Your task to perform on an android device: open wifi settings Image 0: 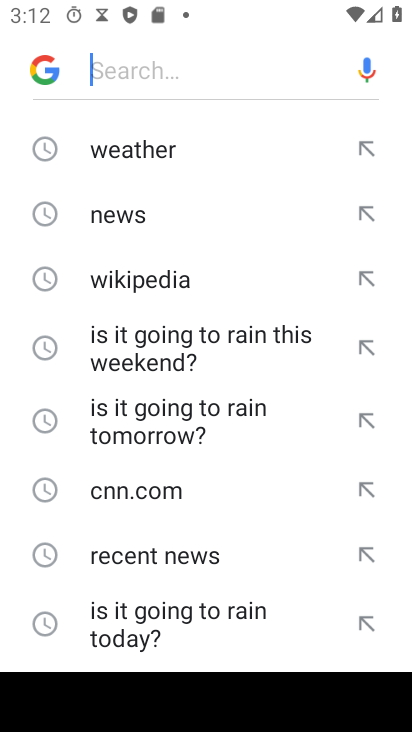
Step 0: press back button
Your task to perform on an android device: open wifi settings Image 1: 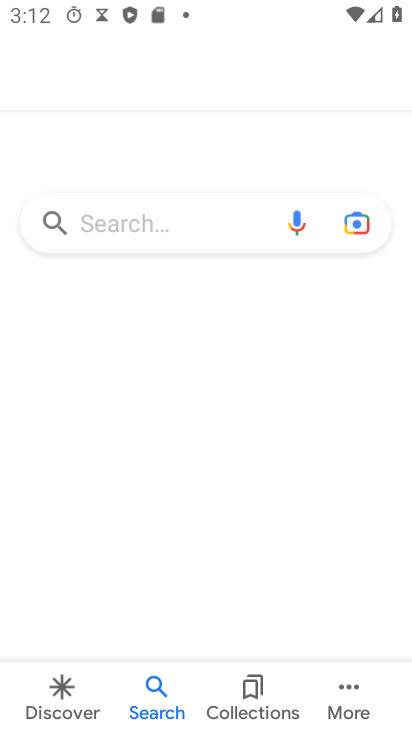
Step 1: press home button
Your task to perform on an android device: open wifi settings Image 2: 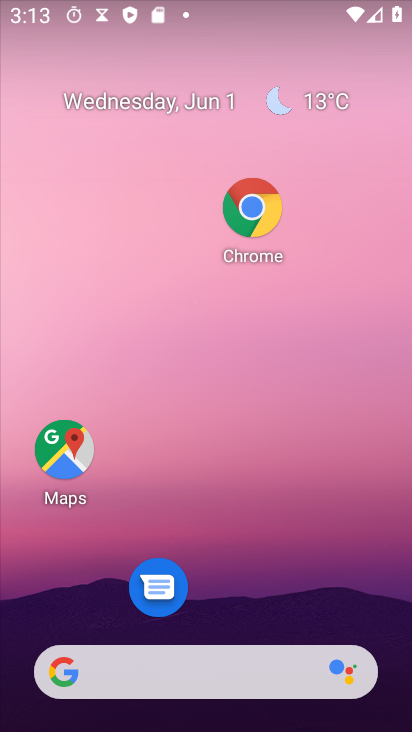
Step 2: drag from (256, 675) to (213, 192)
Your task to perform on an android device: open wifi settings Image 3: 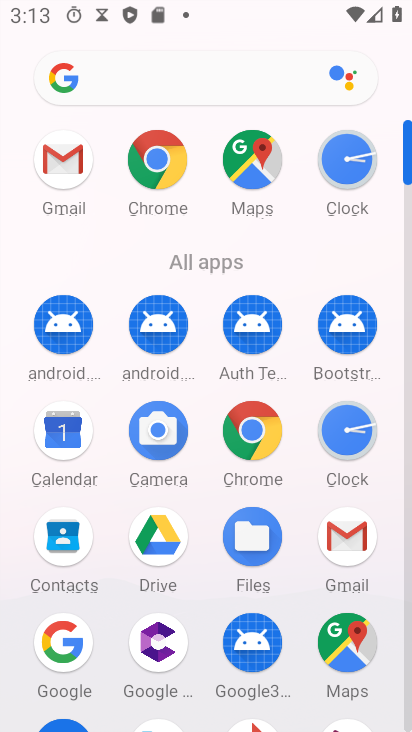
Step 3: drag from (210, 532) to (232, 181)
Your task to perform on an android device: open wifi settings Image 4: 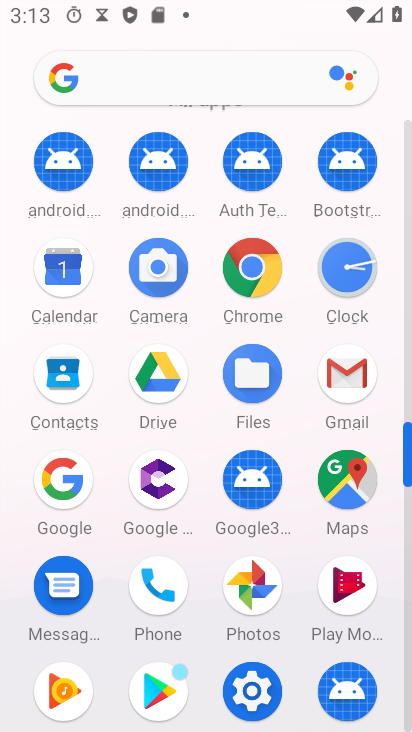
Step 4: drag from (153, 514) to (205, 226)
Your task to perform on an android device: open wifi settings Image 5: 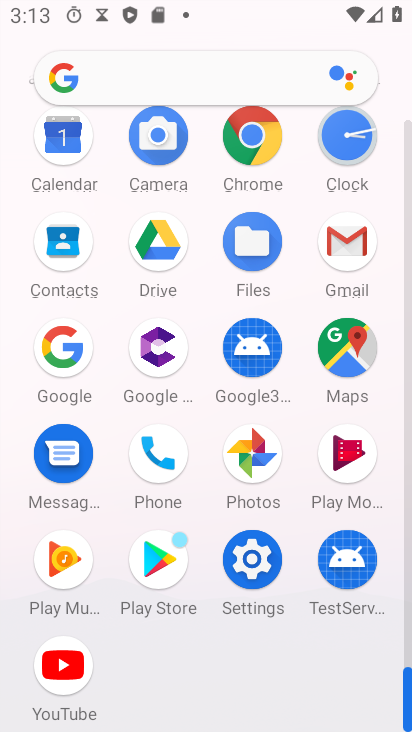
Step 5: click (246, 577)
Your task to perform on an android device: open wifi settings Image 6: 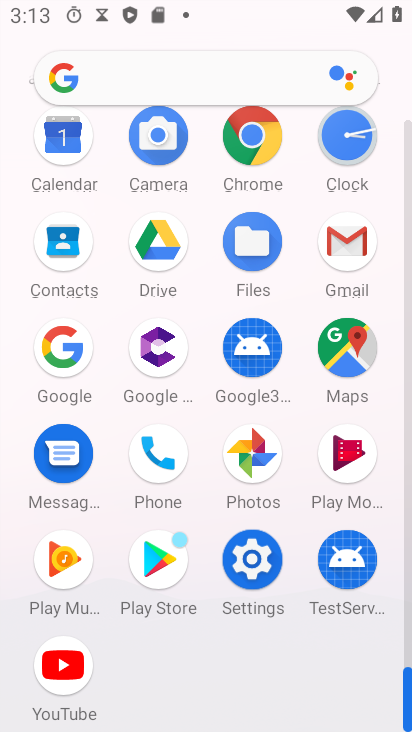
Step 6: click (246, 577)
Your task to perform on an android device: open wifi settings Image 7: 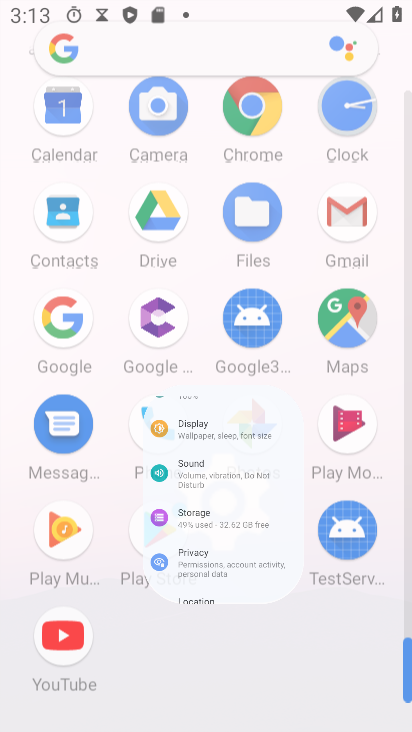
Step 7: click (247, 576)
Your task to perform on an android device: open wifi settings Image 8: 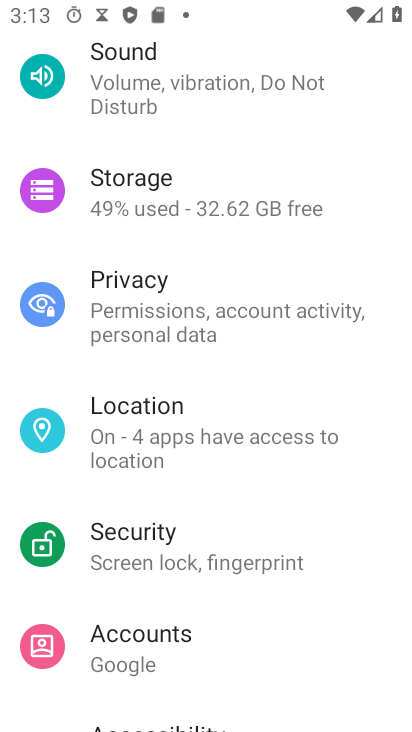
Step 8: click (247, 576)
Your task to perform on an android device: open wifi settings Image 9: 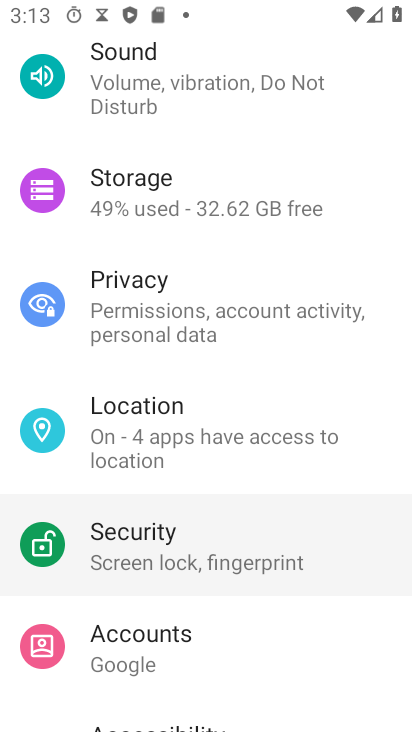
Step 9: click (248, 576)
Your task to perform on an android device: open wifi settings Image 10: 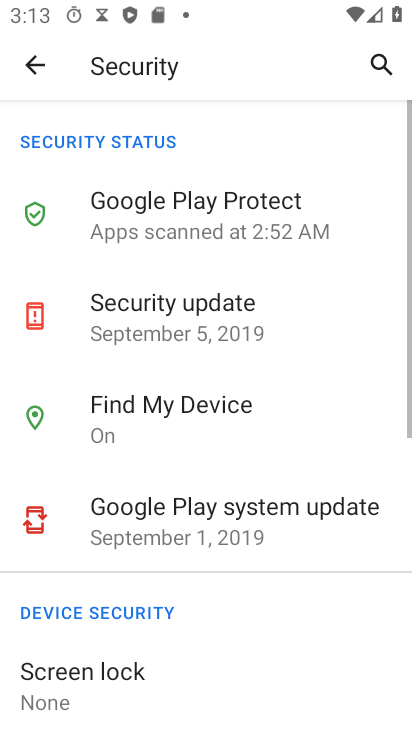
Step 10: click (30, 70)
Your task to perform on an android device: open wifi settings Image 11: 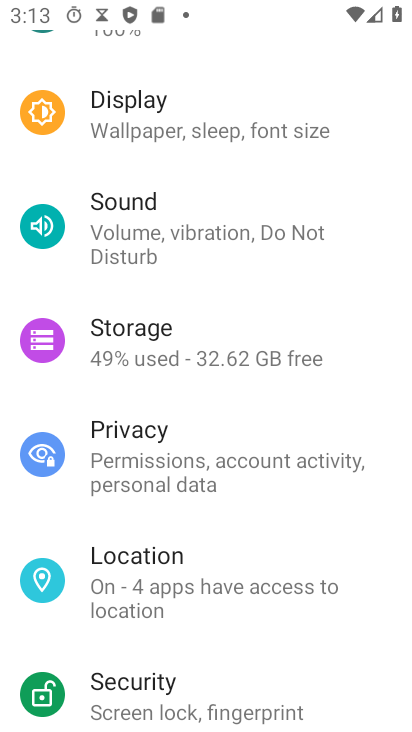
Step 11: drag from (139, 169) to (191, 634)
Your task to perform on an android device: open wifi settings Image 12: 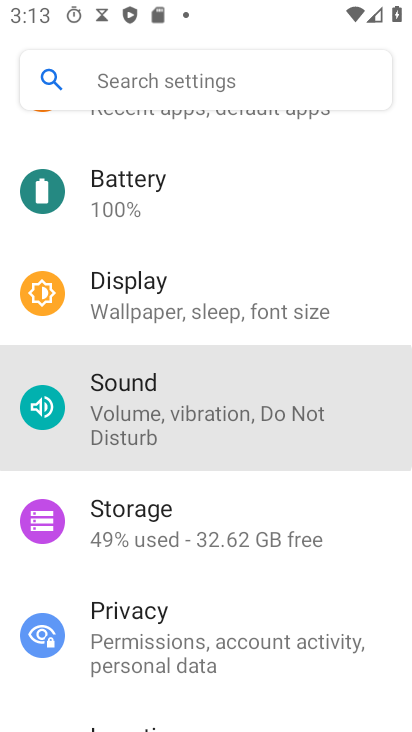
Step 12: drag from (192, 209) to (203, 596)
Your task to perform on an android device: open wifi settings Image 13: 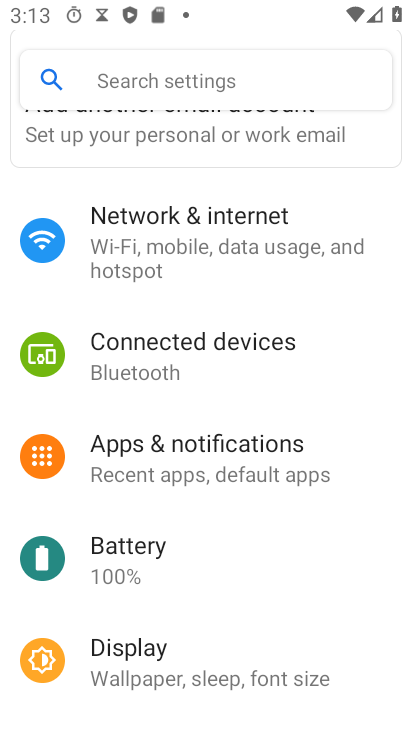
Step 13: drag from (191, 260) to (197, 654)
Your task to perform on an android device: open wifi settings Image 14: 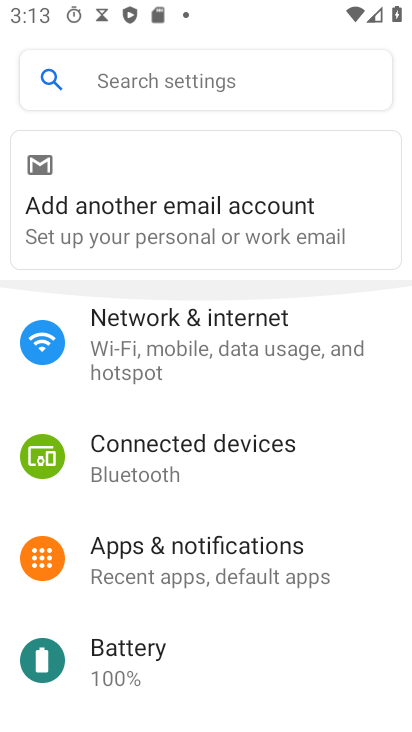
Step 14: drag from (193, 376) to (202, 623)
Your task to perform on an android device: open wifi settings Image 15: 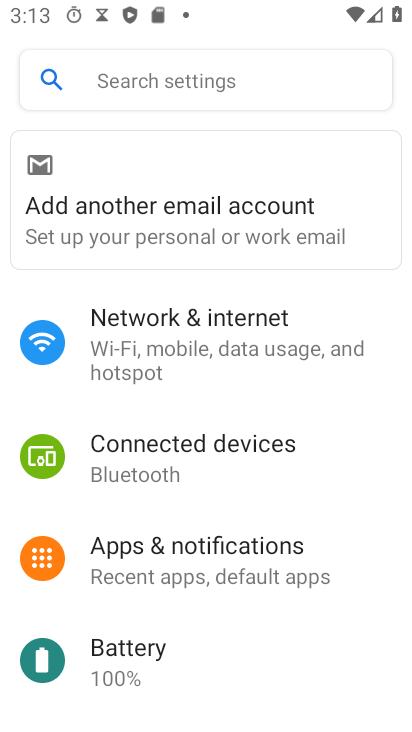
Step 15: click (185, 340)
Your task to perform on an android device: open wifi settings Image 16: 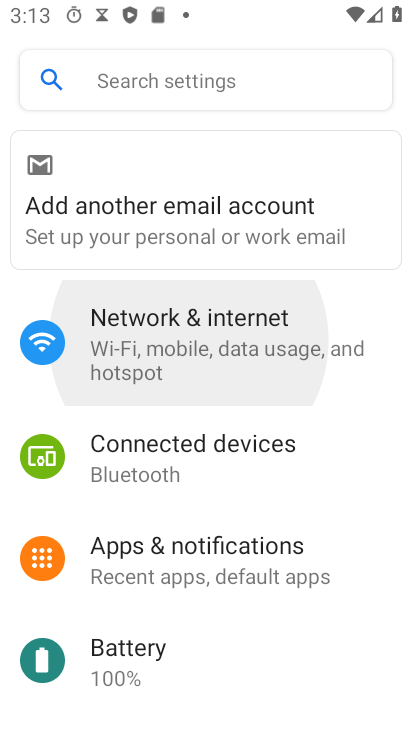
Step 16: click (185, 340)
Your task to perform on an android device: open wifi settings Image 17: 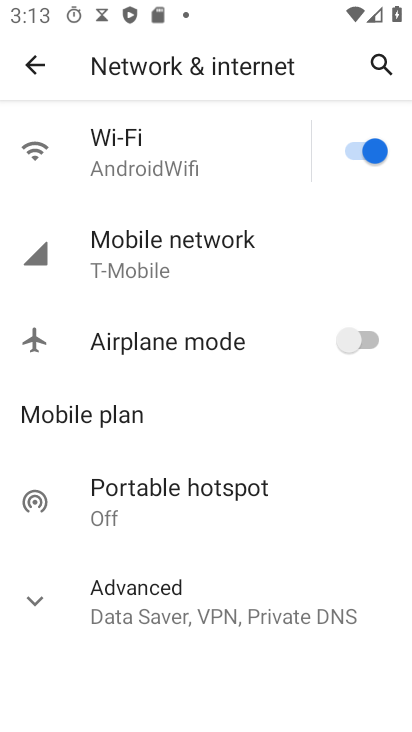
Step 17: task complete